Your task to perform on an android device: change the clock display to digital Image 0: 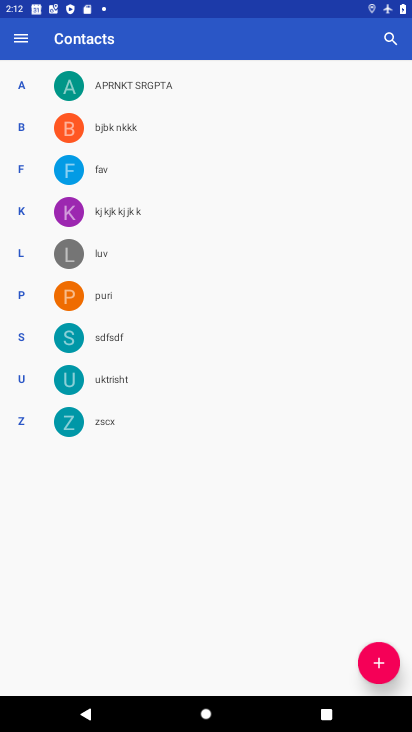
Step 0: press home button
Your task to perform on an android device: change the clock display to digital Image 1: 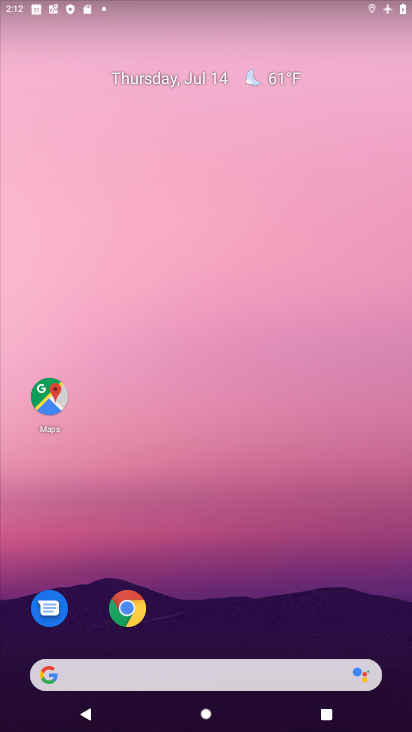
Step 1: drag from (207, 679) to (301, 338)
Your task to perform on an android device: change the clock display to digital Image 2: 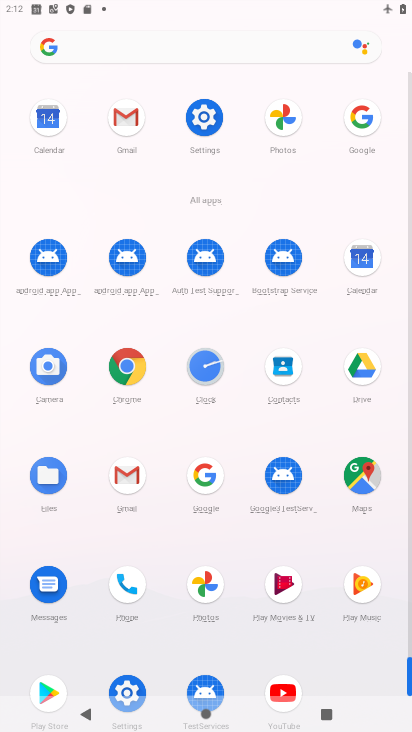
Step 2: click (204, 366)
Your task to perform on an android device: change the clock display to digital Image 3: 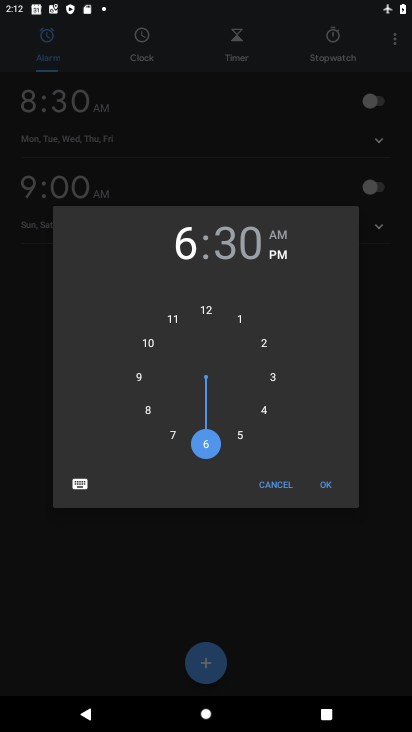
Step 3: click (283, 488)
Your task to perform on an android device: change the clock display to digital Image 4: 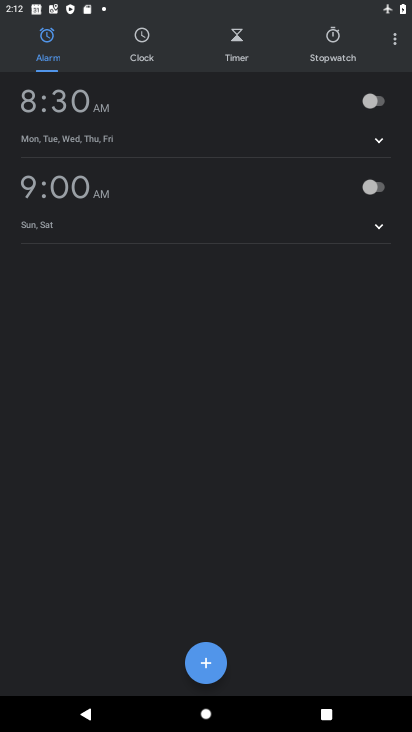
Step 4: click (396, 41)
Your task to perform on an android device: change the clock display to digital Image 5: 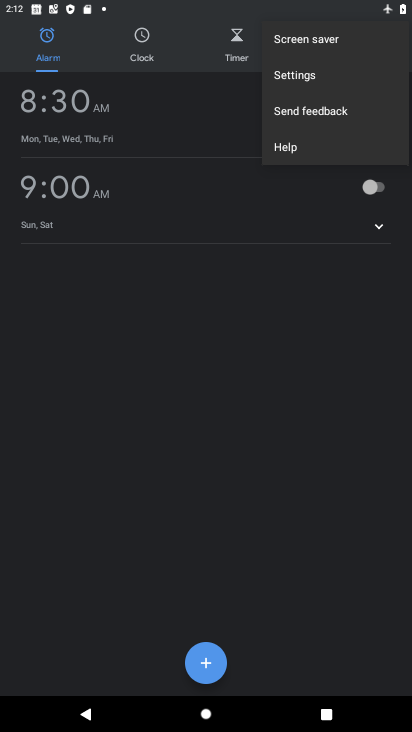
Step 5: click (307, 72)
Your task to perform on an android device: change the clock display to digital Image 6: 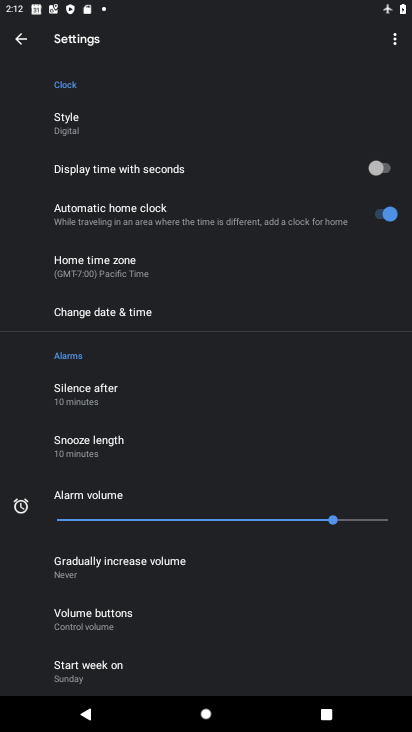
Step 6: click (86, 123)
Your task to perform on an android device: change the clock display to digital Image 7: 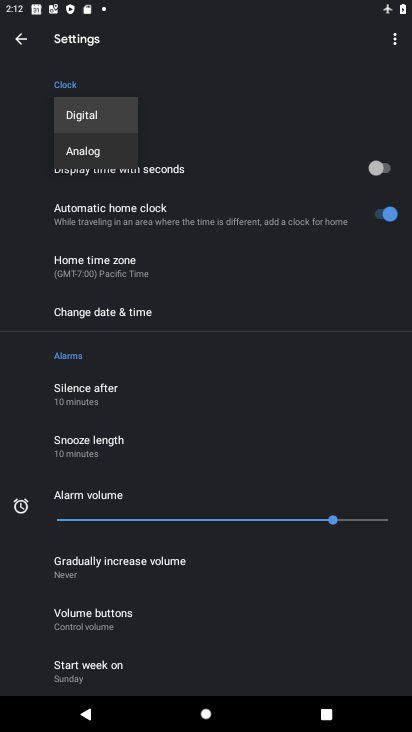
Step 7: click (86, 123)
Your task to perform on an android device: change the clock display to digital Image 8: 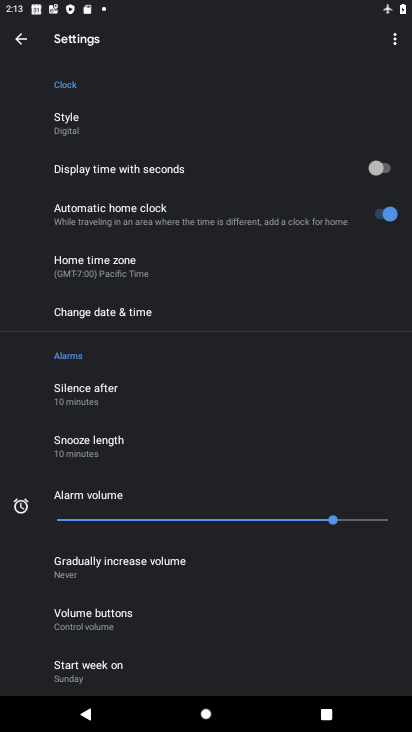
Step 8: task complete